Your task to perform on an android device: Go to wifi settings Image 0: 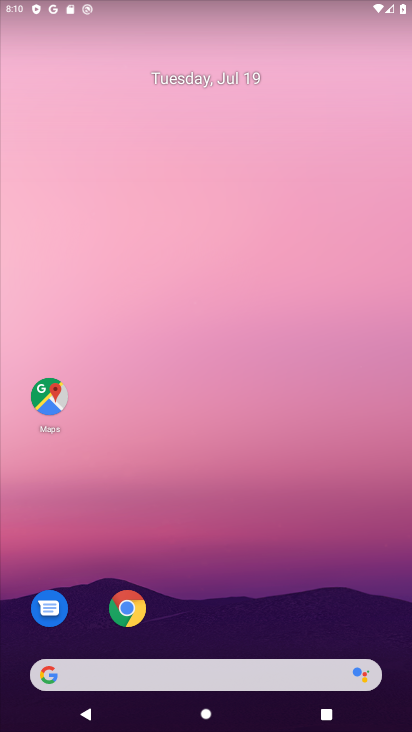
Step 0: drag from (406, 705) to (330, 145)
Your task to perform on an android device: Go to wifi settings Image 1: 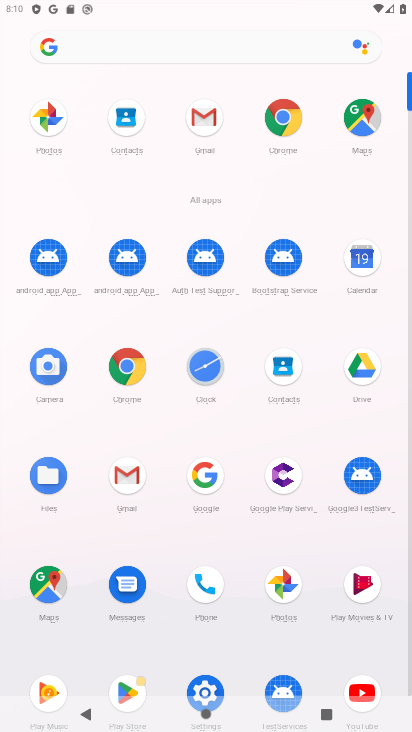
Step 1: drag from (209, 683) to (137, 397)
Your task to perform on an android device: Go to wifi settings Image 2: 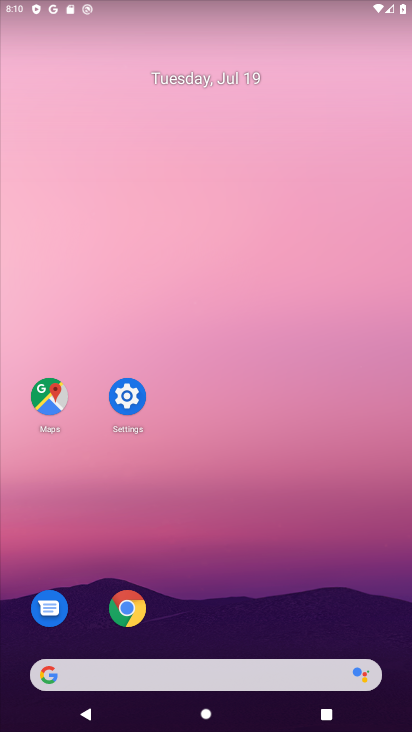
Step 2: click (132, 399)
Your task to perform on an android device: Go to wifi settings Image 3: 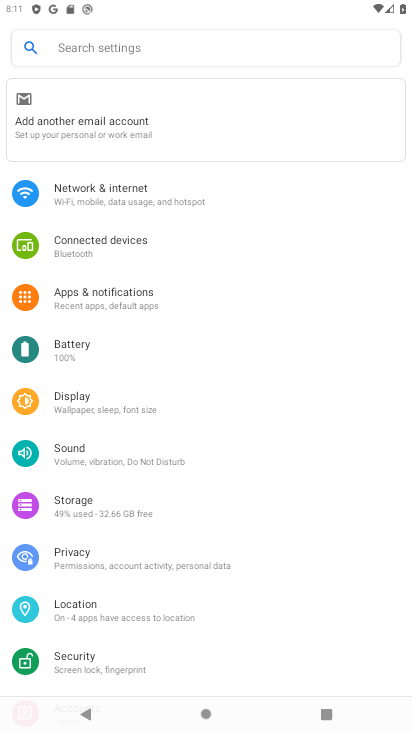
Step 3: click (117, 201)
Your task to perform on an android device: Go to wifi settings Image 4: 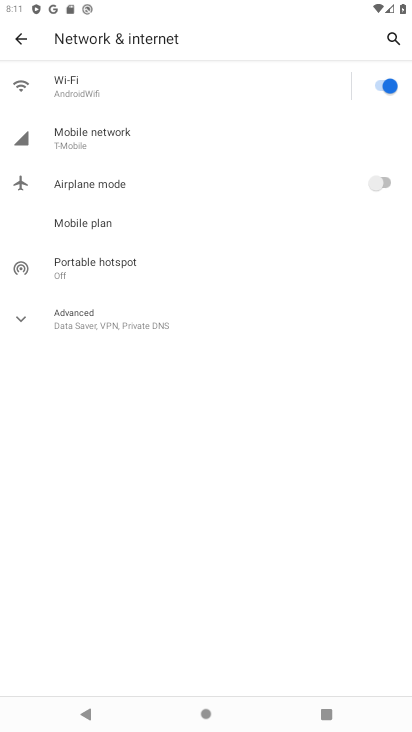
Step 4: click (226, 91)
Your task to perform on an android device: Go to wifi settings Image 5: 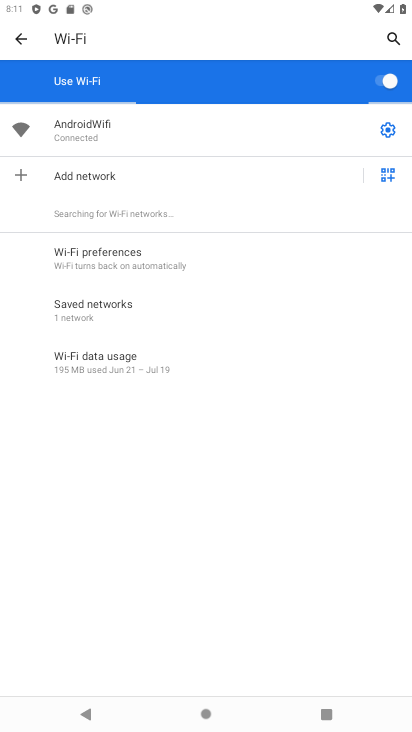
Step 5: click (381, 128)
Your task to perform on an android device: Go to wifi settings Image 6: 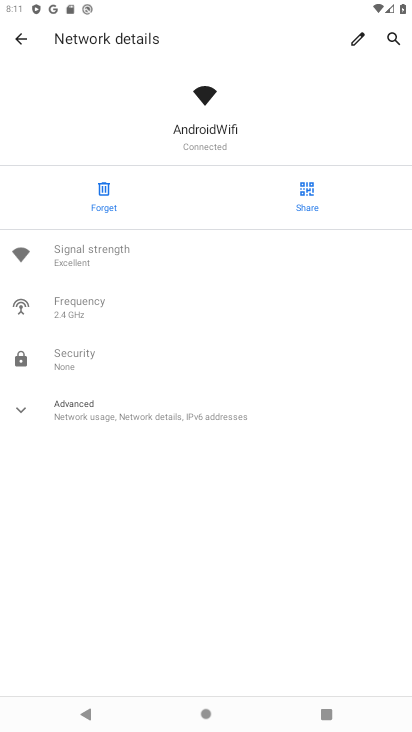
Step 6: task complete